Your task to perform on an android device: toggle pop-ups in chrome Image 0: 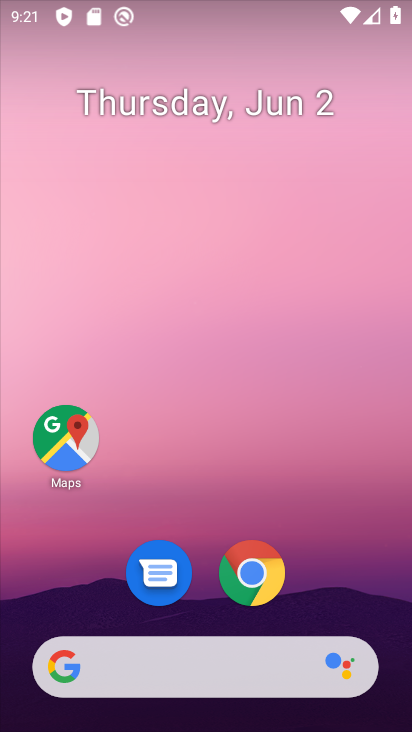
Step 0: drag from (343, 549) to (265, 137)
Your task to perform on an android device: toggle pop-ups in chrome Image 1: 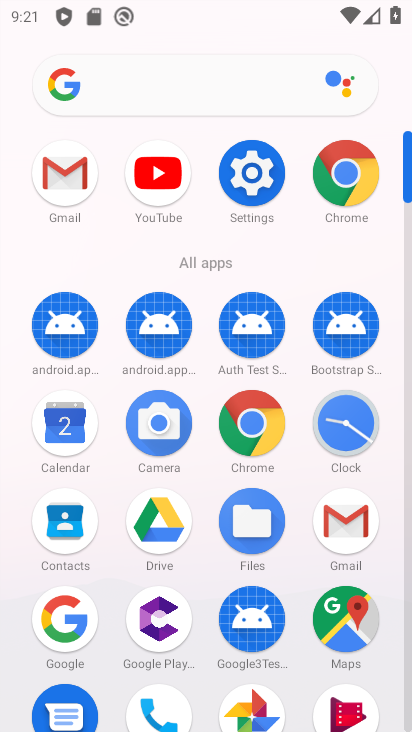
Step 1: click (254, 425)
Your task to perform on an android device: toggle pop-ups in chrome Image 2: 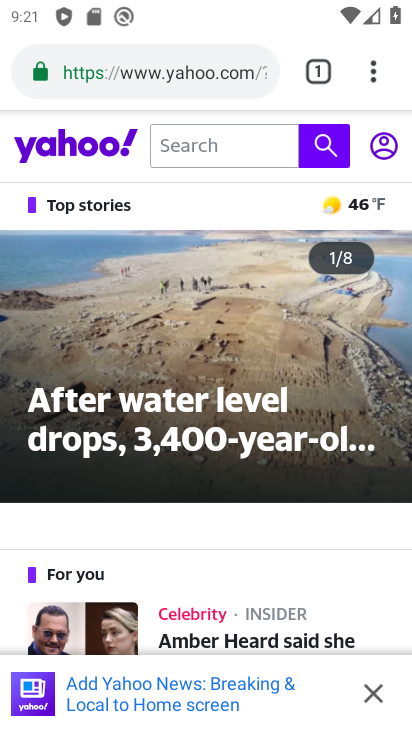
Step 2: click (370, 70)
Your task to perform on an android device: toggle pop-ups in chrome Image 3: 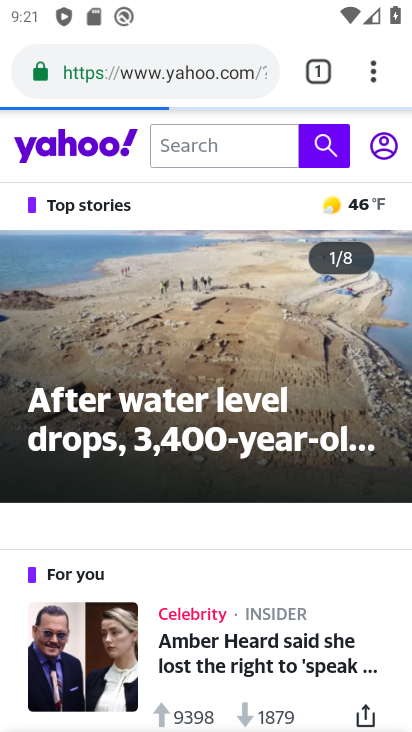
Step 3: drag from (372, 56) to (207, 573)
Your task to perform on an android device: toggle pop-ups in chrome Image 4: 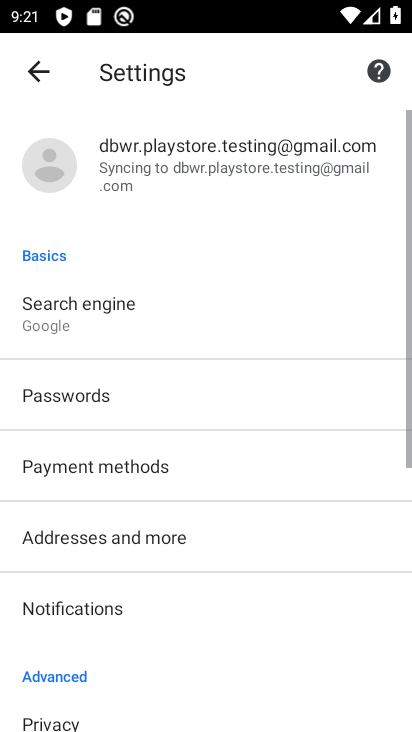
Step 4: drag from (204, 569) to (185, 219)
Your task to perform on an android device: toggle pop-ups in chrome Image 5: 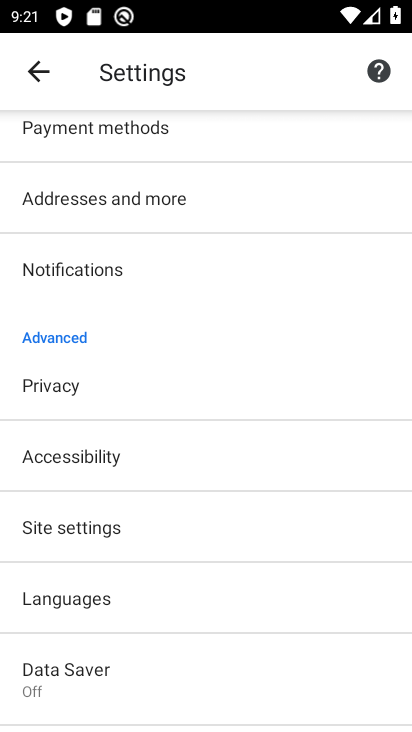
Step 5: click (101, 536)
Your task to perform on an android device: toggle pop-ups in chrome Image 6: 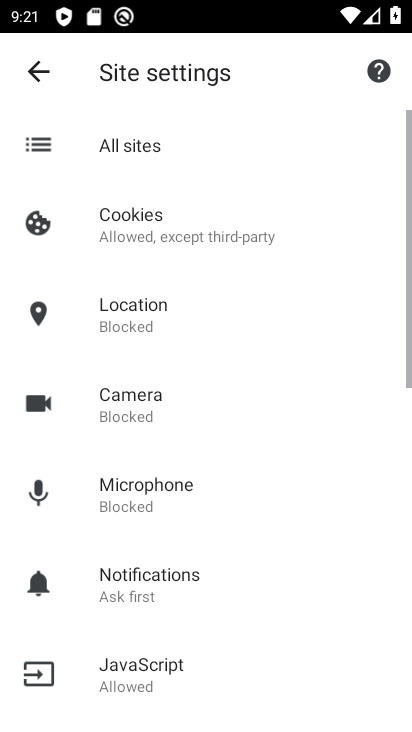
Step 6: drag from (270, 577) to (281, 251)
Your task to perform on an android device: toggle pop-ups in chrome Image 7: 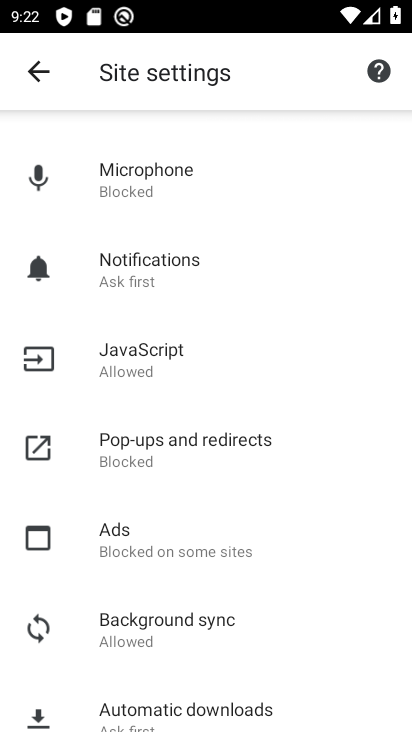
Step 7: click (184, 455)
Your task to perform on an android device: toggle pop-ups in chrome Image 8: 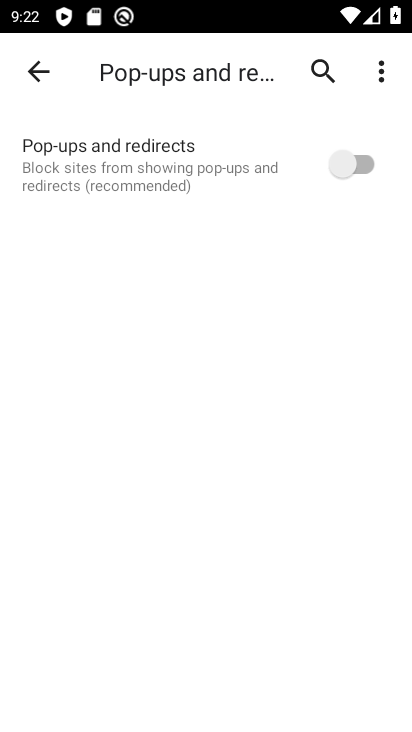
Step 8: click (360, 168)
Your task to perform on an android device: toggle pop-ups in chrome Image 9: 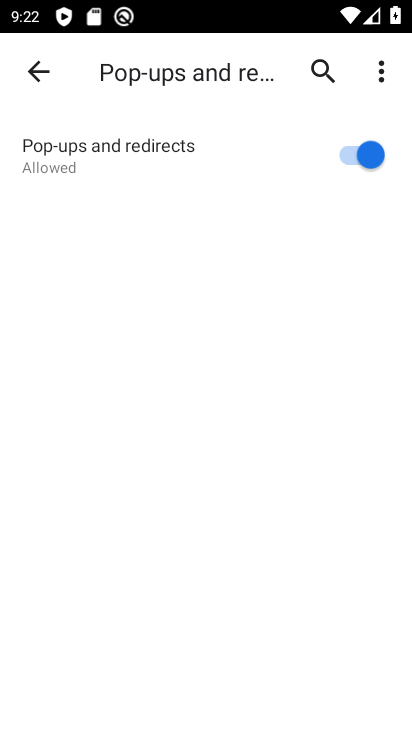
Step 9: task complete